Your task to perform on an android device: check google app version Image 0: 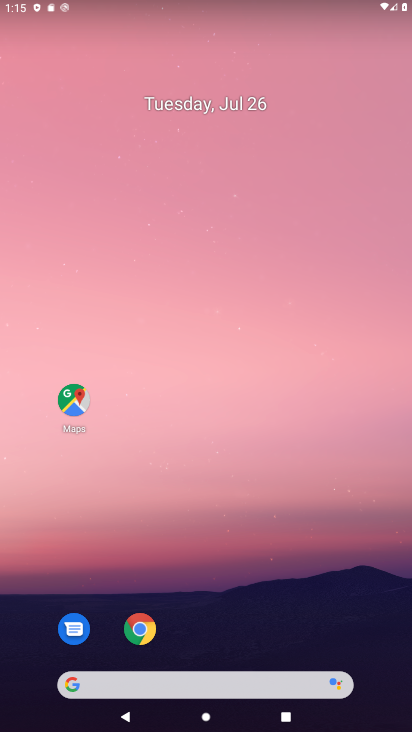
Step 0: click (113, 687)
Your task to perform on an android device: check google app version Image 1: 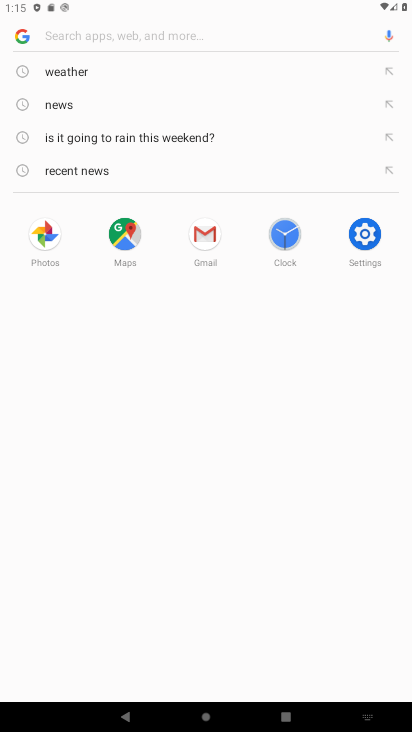
Step 1: click (24, 35)
Your task to perform on an android device: check google app version Image 2: 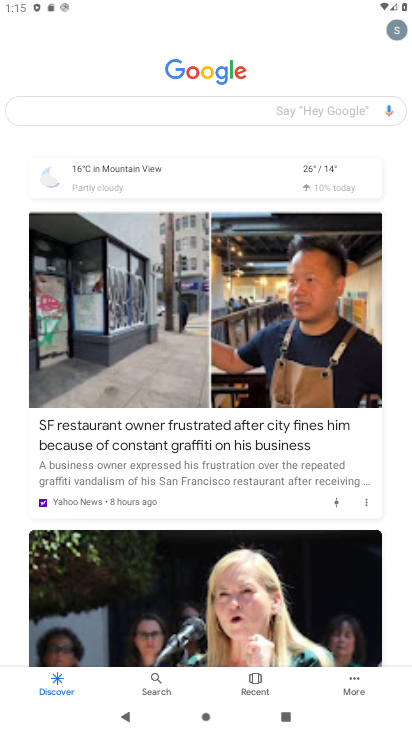
Step 2: click (391, 24)
Your task to perform on an android device: check google app version Image 3: 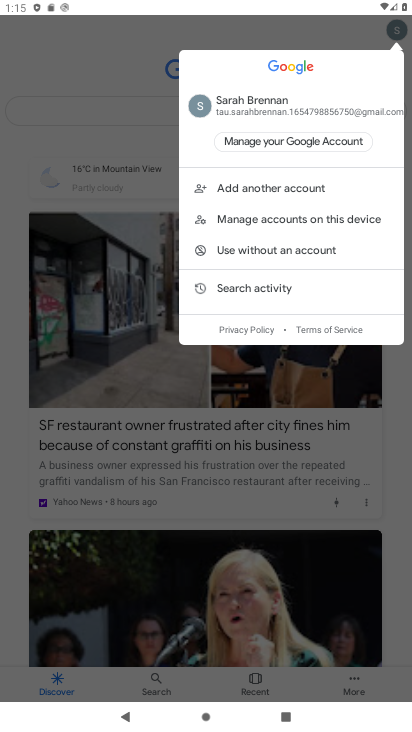
Step 3: click (253, 190)
Your task to perform on an android device: check google app version Image 4: 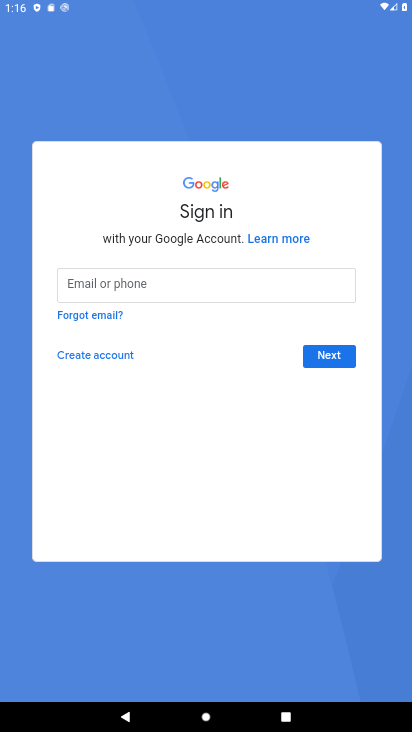
Step 4: task complete